Your task to perform on an android device: turn off priority inbox in the gmail app Image 0: 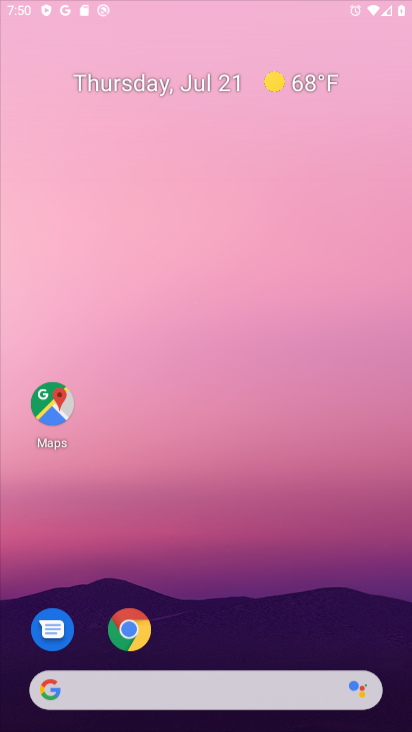
Step 0: click (294, 242)
Your task to perform on an android device: turn off priority inbox in the gmail app Image 1: 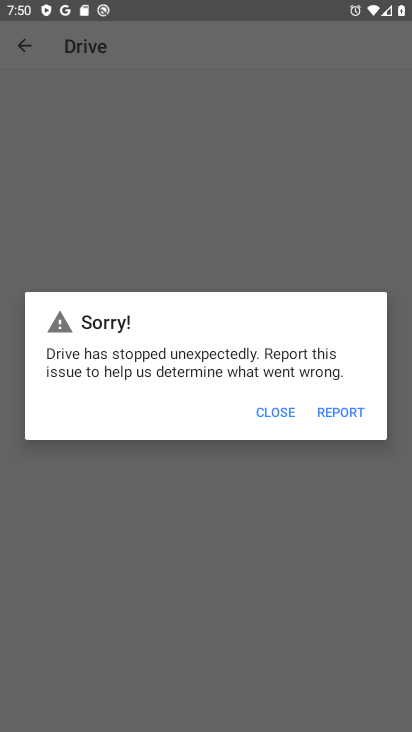
Step 1: press home button
Your task to perform on an android device: turn off priority inbox in the gmail app Image 2: 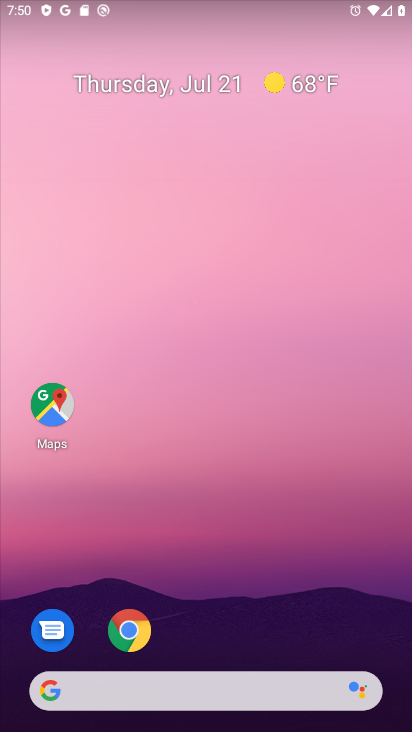
Step 2: drag from (237, 612) to (82, 14)
Your task to perform on an android device: turn off priority inbox in the gmail app Image 3: 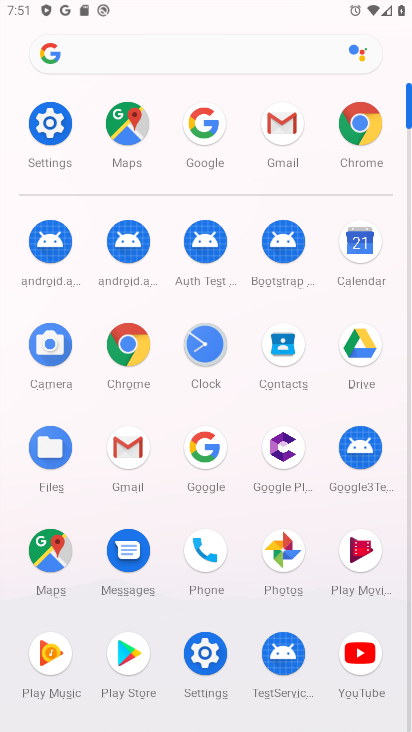
Step 3: click (274, 128)
Your task to perform on an android device: turn off priority inbox in the gmail app Image 4: 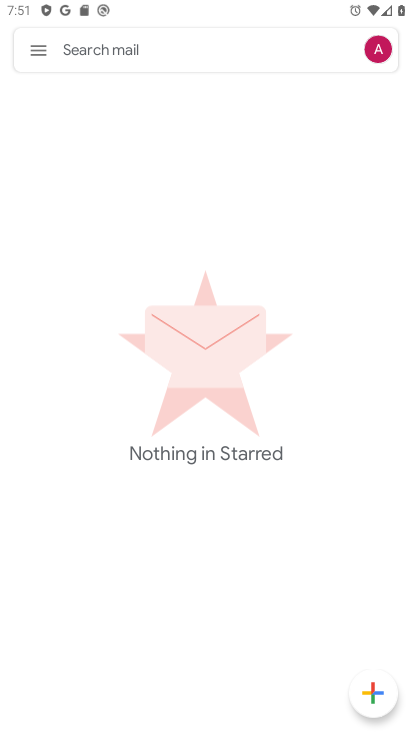
Step 4: click (31, 60)
Your task to perform on an android device: turn off priority inbox in the gmail app Image 5: 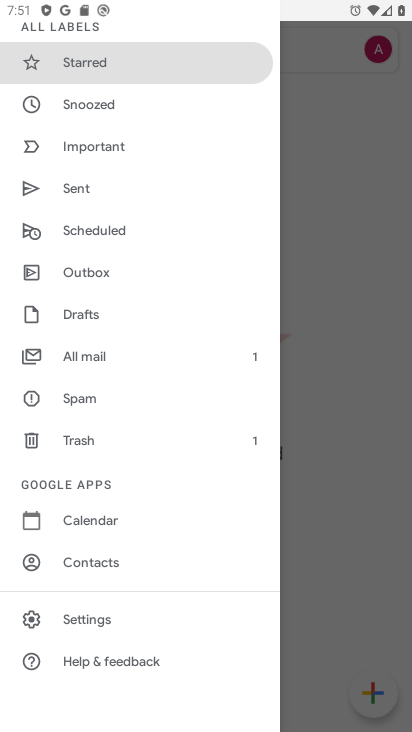
Step 5: drag from (116, 581) to (9, 362)
Your task to perform on an android device: turn off priority inbox in the gmail app Image 6: 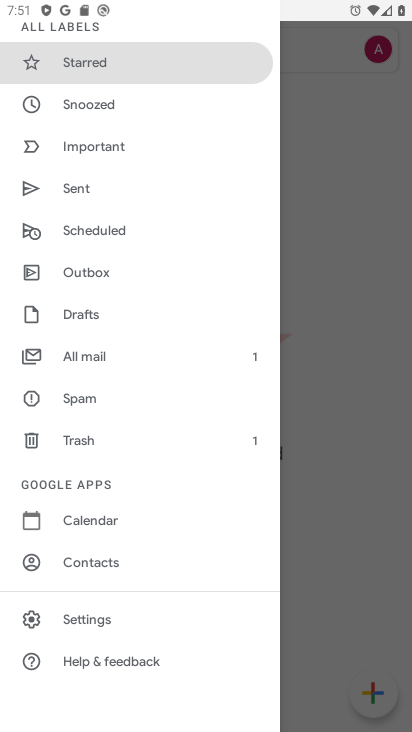
Step 6: click (73, 616)
Your task to perform on an android device: turn off priority inbox in the gmail app Image 7: 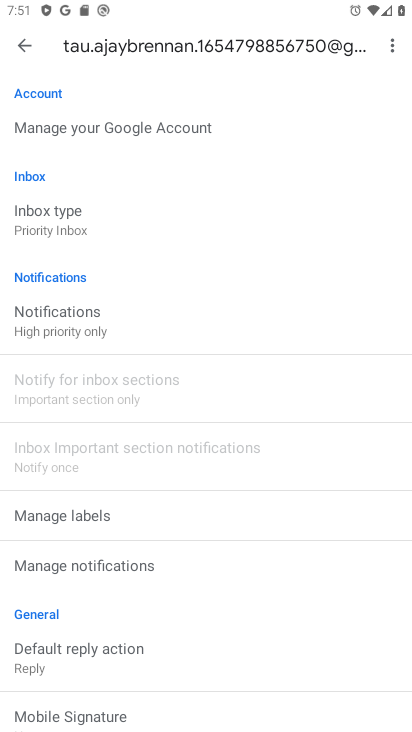
Step 7: click (62, 229)
Your task to perform on an android device: turn off priority inbox in the gmail app Image 8: 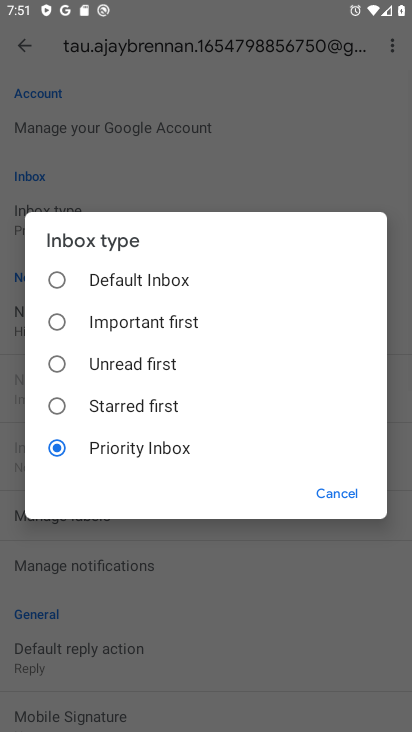
Step 8: click (98, 278)
Your task to perform on an android device: turn off priority inbox in the gmail app Image 9: 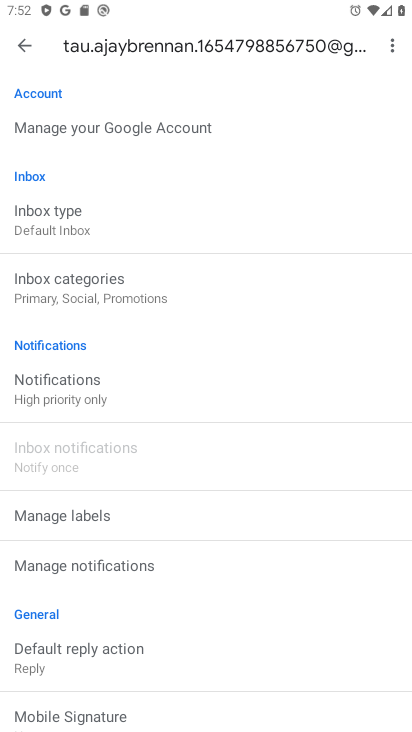
Step 9: task complete